Your task to perform on an android device: turn off location history Image 0: 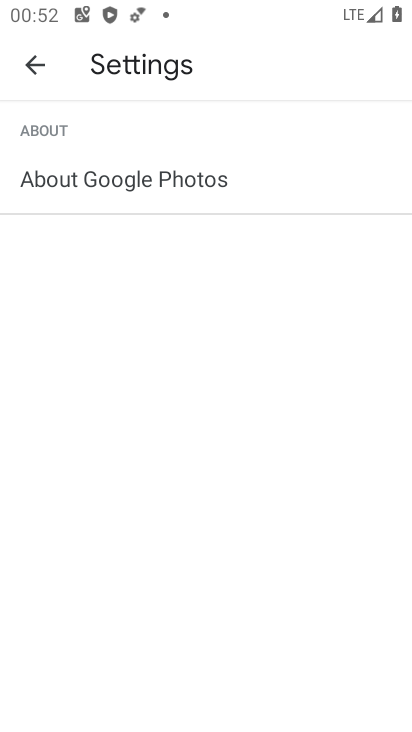
Step 0: press home button
Your task to perform on an android device: turn off location history Image 1: 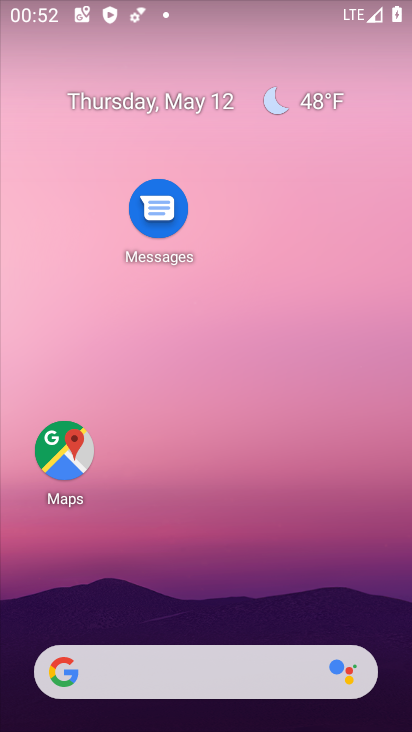
Step 1: drag from (183, 656) to (131, 0)
Your task to perform on an android device: turn off location history Image 2: 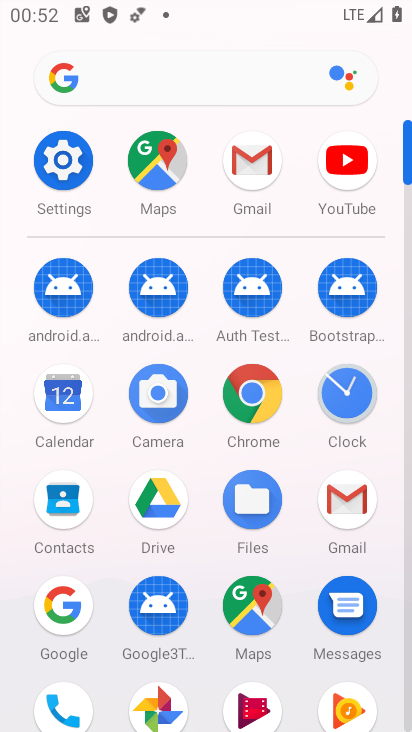
Step 2: click (81, 173)
Your task to perform on an android device: turn off location history Image 3: 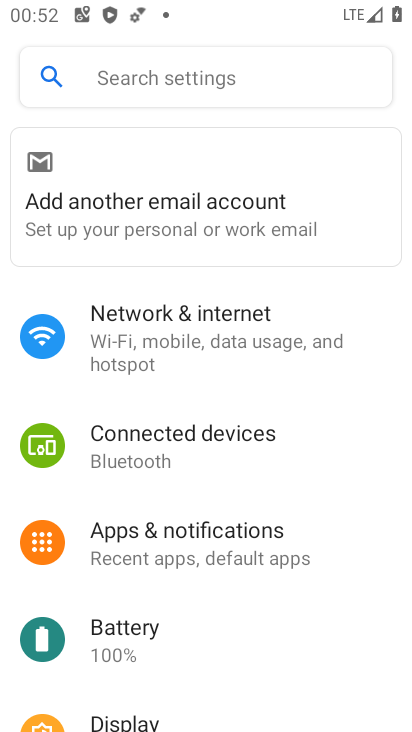
Step 3: drag from (185, 471) to (116, 81)
Your task to perform on an android device: turn off location history Image 4: 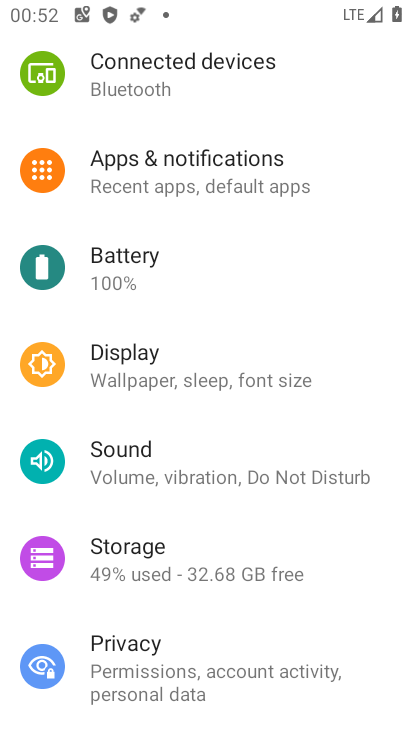
Step 4: drag from (187, 494) to (137, 174)
Your task to perform on an android device: turn off location history Image 5: 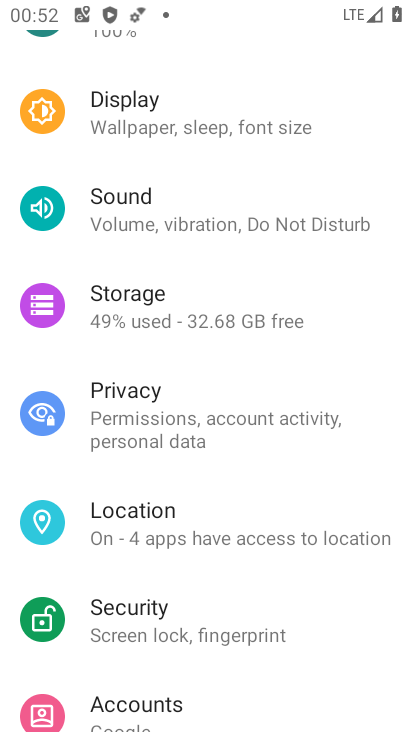
Step 5: click (163, 548)
Your task to perform on an android device: turn off location history Image 6: 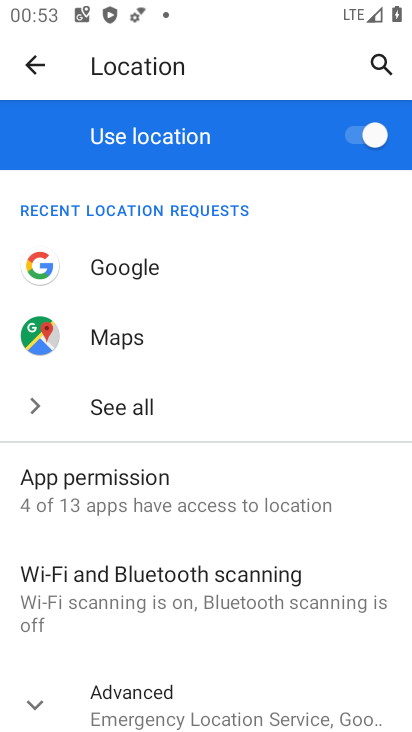
Step 6: click (147, 684)
Your task to perform on an android device: turn off location history Image 7: 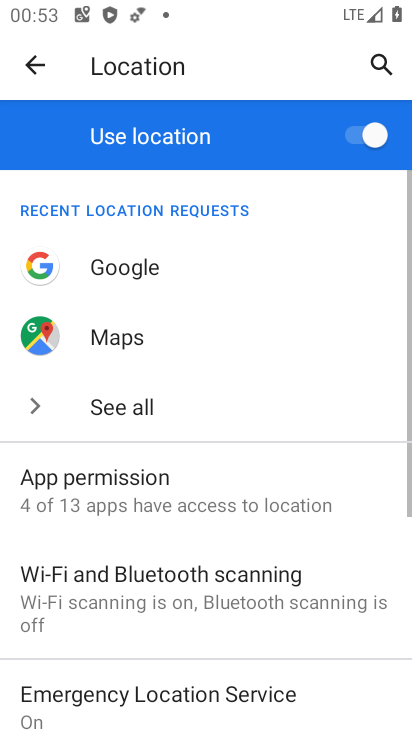
Step 7: drag from (158, 643) to (75, 207)
Your task to perform on an android device: turn off location history Image 8: 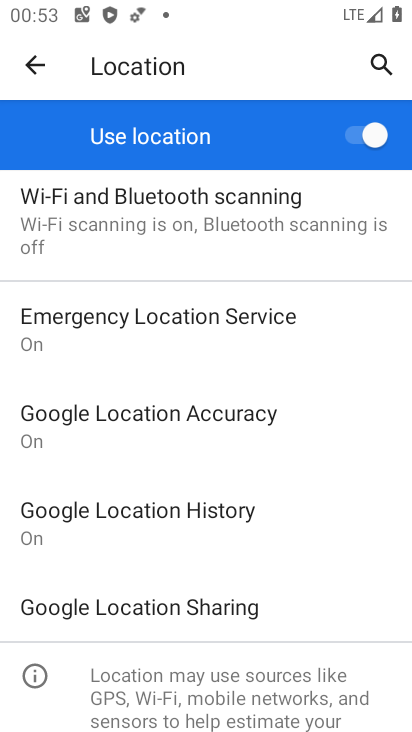
Step 8: click (137, 516)
Your task to perform on an android device: turn off location history Image 9: 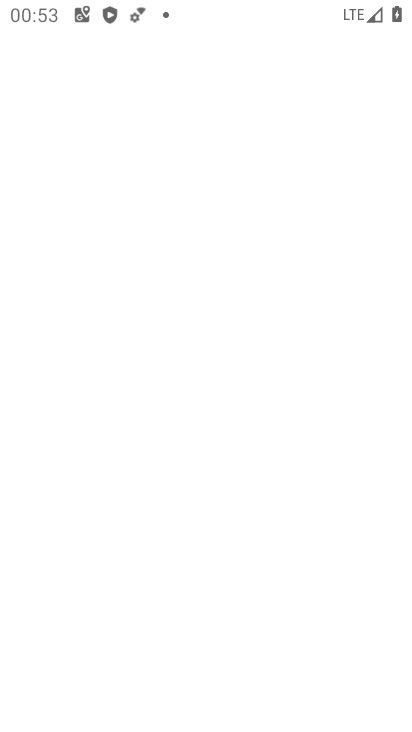
Step 9: task complete